Your task to perform on an android device: Go to privacy settings Image 0: 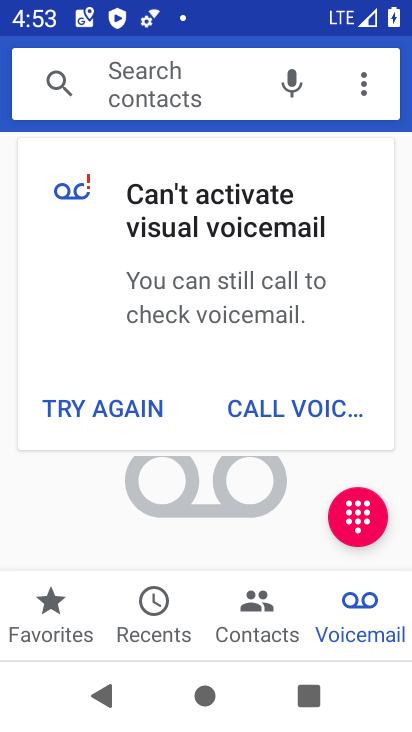
Step 0: press home button
Your task to perform on an android device: Go to privacy settings Image 1: 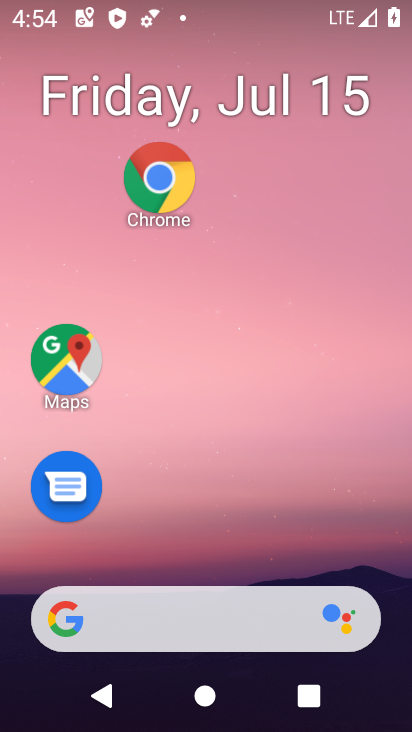
Step 1: drag from (180, 486) to (242, 68)
Your task to perform on an android device: Go to privacy settings Image 2: 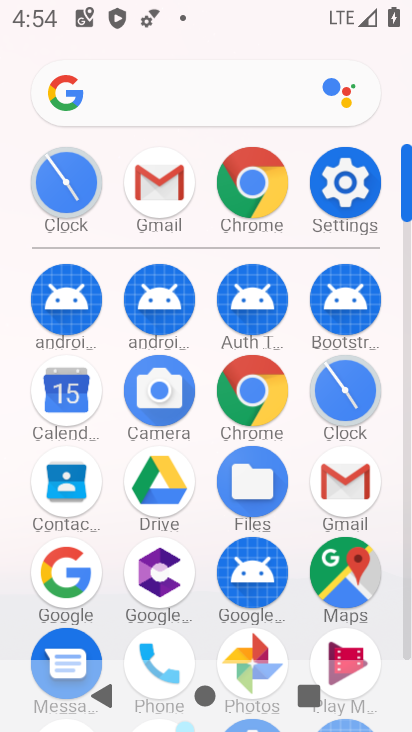
Step 2: click (346, 187)
Your task to perform on an android device: Go to privacy settings Image 3: 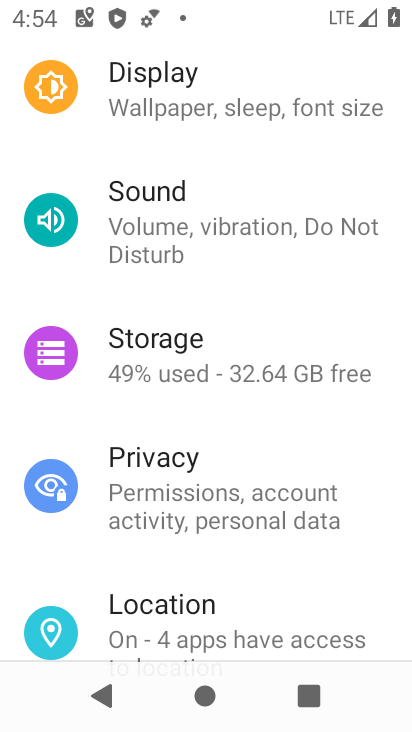
Step 3: click (173, 523)
Your task to perform on an android device: Go to privacy settings Image 4: 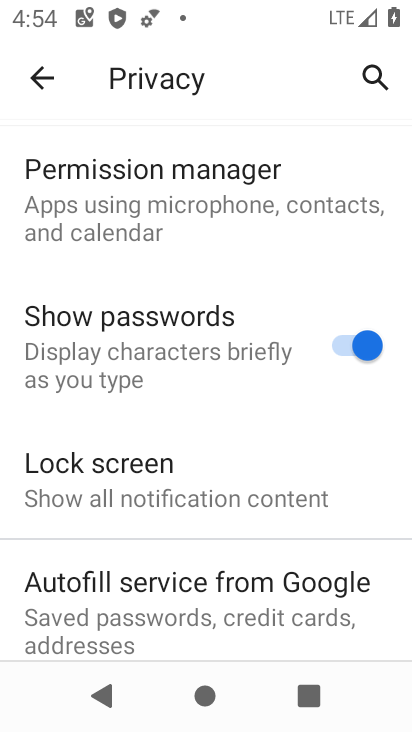
Step 4: task complete